Your task to perform on an android device: toggle improve location accuracy Image 0: 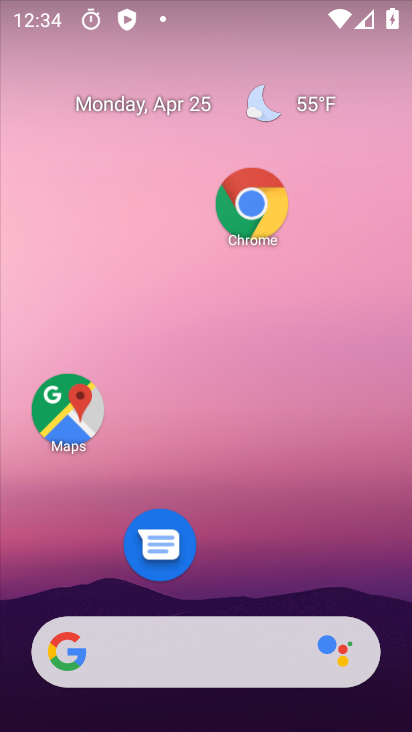
Step 0: drag from (286, 680) to (279, 206)
Your task to perform on an android device: toggle improve location accuracy Image 1: 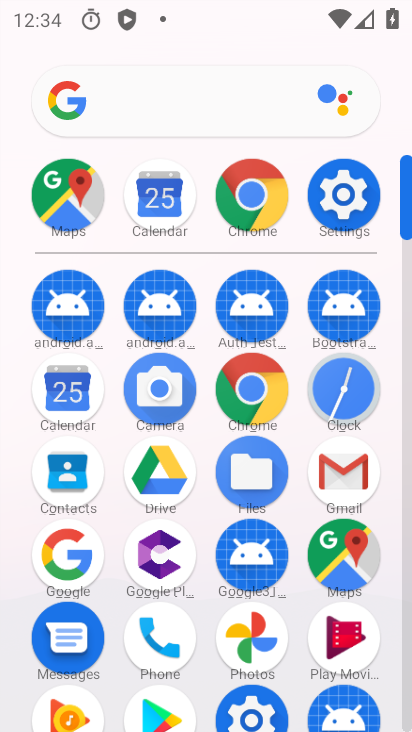
Step 1: click (343, 193)
Your task to perform on an android device: toggle improve location accuracy Image 2: 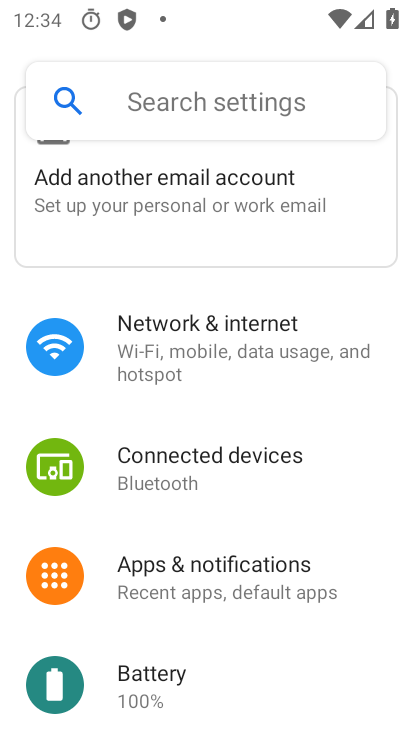
Step 2: click (258, 92)
Your task to perform on an android device: toggle improve location accuracy Image 3: 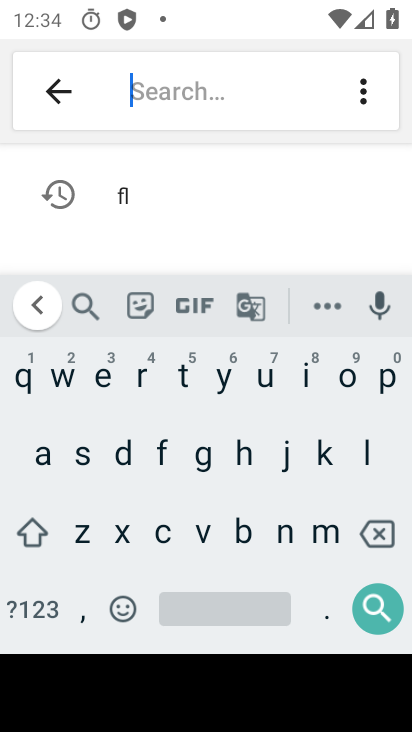
Step 3: click (367, 455)
Your task to perform on an android device: toggle improve location accuracy Image 4: 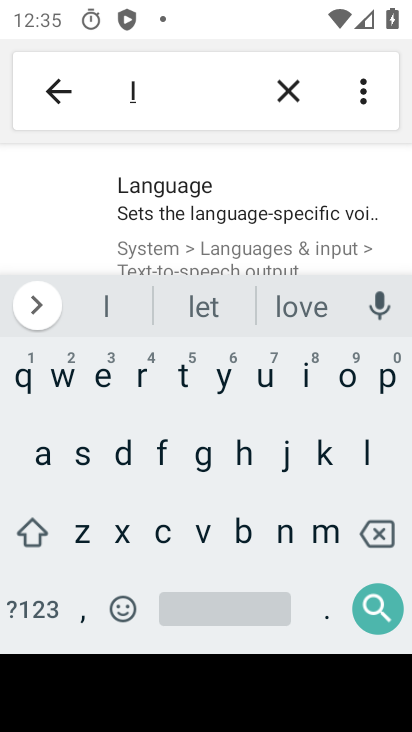
Step 4: click (341, 384)
Your task to perform on an android device: toggle improve location accuracy Image 5: 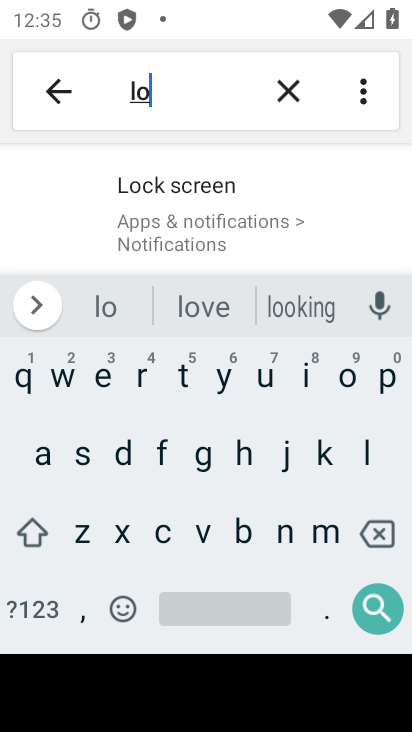
Step 5: click (159, 531)
Your task to perform on an android device: toggle improve location accuracy Image 6: 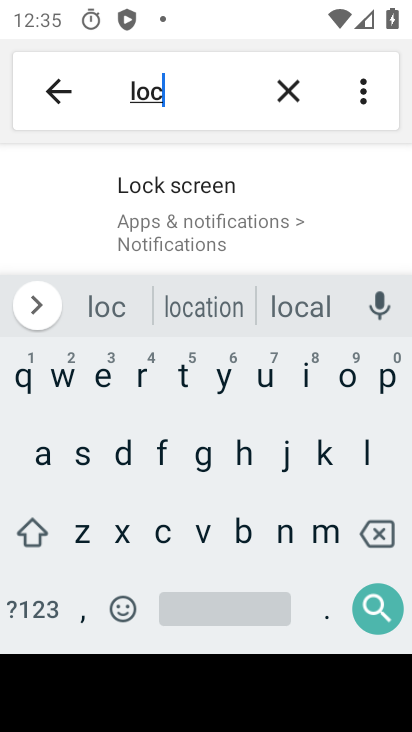
Step 6: click (43, 453)
Your task to perform on an android device: toggle improve location accuracy Image 7: 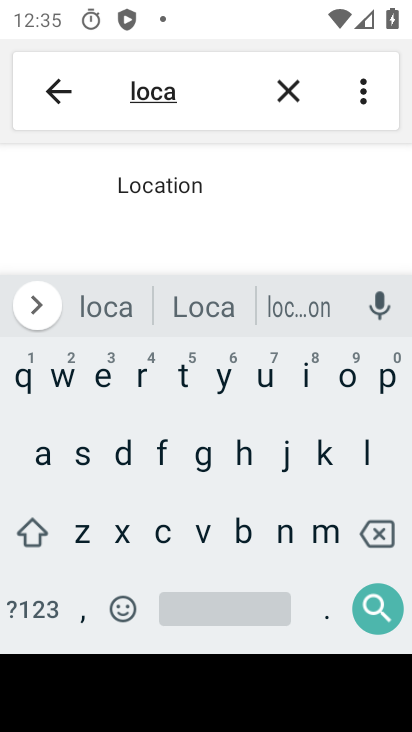
Step 7: press back button
Your task to perform on an android device: toggle improve location accuracy Image 8: 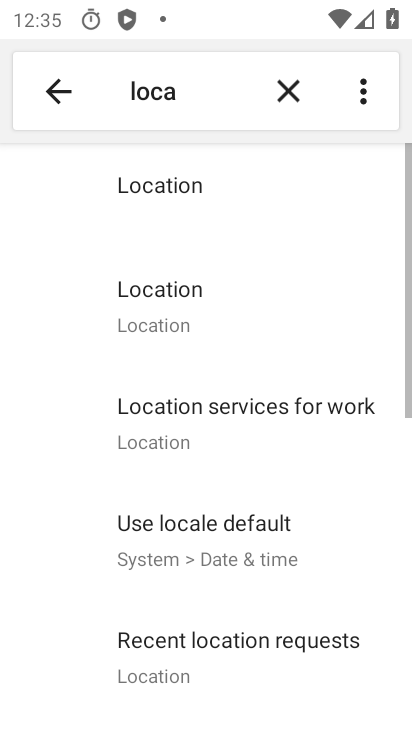
Step 8: click (158, 320)
Your task to perform on an android device: toggle improve location accuracy Image 9: 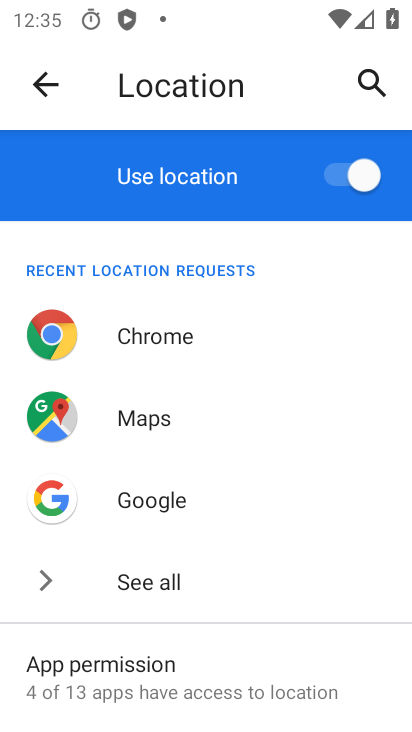
Step 9: drag from (115, 584) to (197, 428)
Your task to perform on an android device: toggle improve location accuracy Image 10: 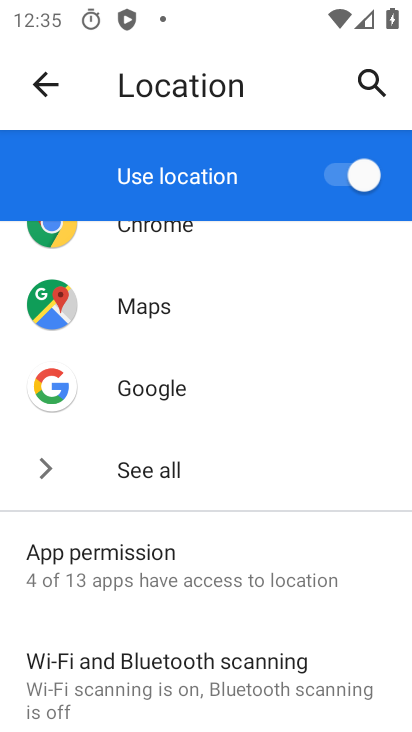
Step 10: drag from (283, 654) to (149, 612)
Your task to perform on an android device: toggle improve location accuracy Image 11: 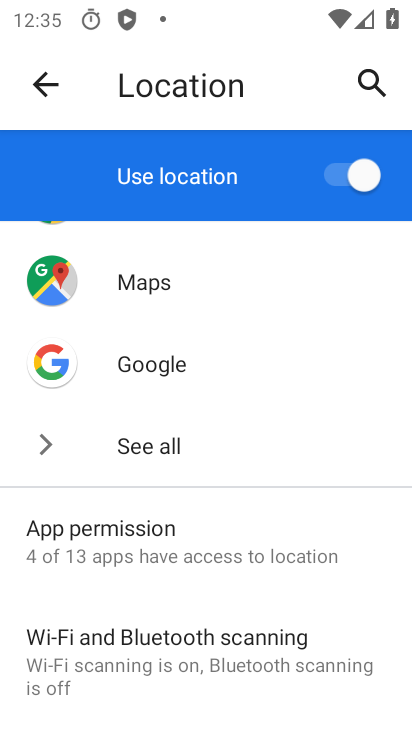
Step 11: drag from (195, 603) to (224, 345)
Your task to perform on an android device: toggle improve location accuracy Image 12: 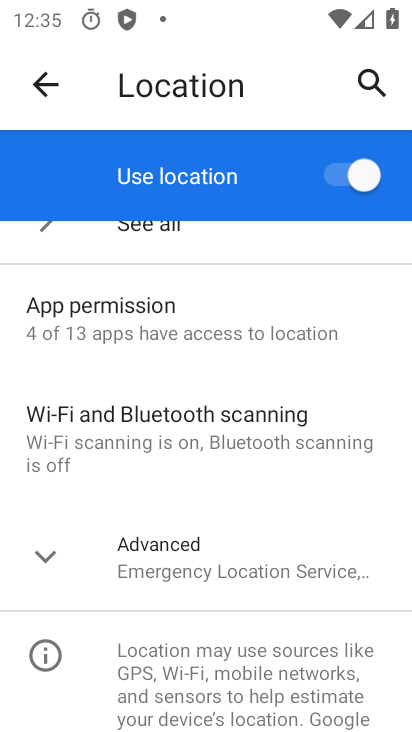
Step 12: click (55, 554)
Your task to perform on an android device: toggle improve location accuracy Image 13: 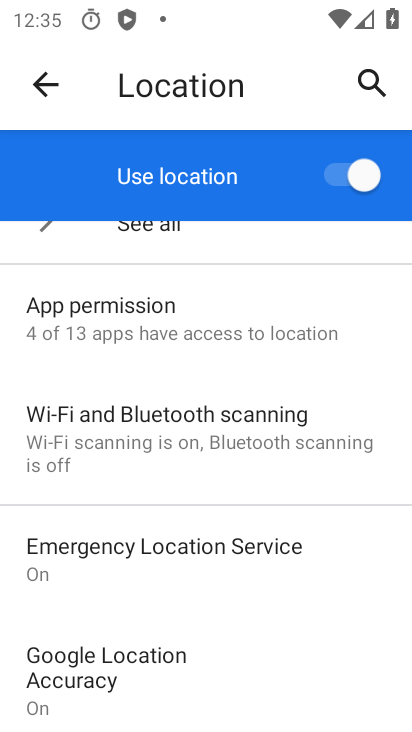
Step 13: click (184, 657)
Your task to perform on an android device: toggle improve location accuracy Image 14: 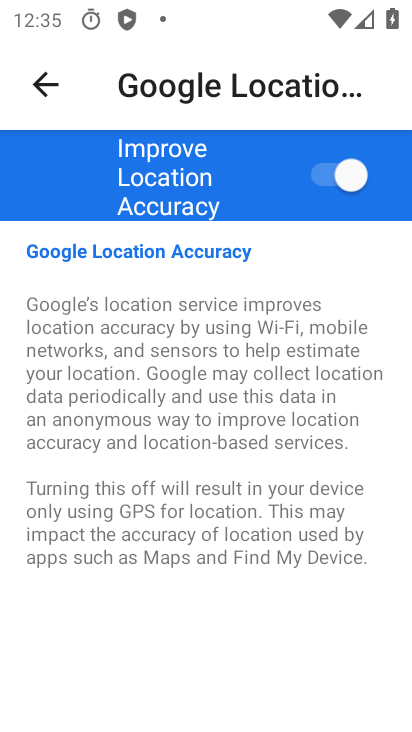
Step 14: task complete